Your task to perform on an android device: move a message to another label in the gmail app Image 0: 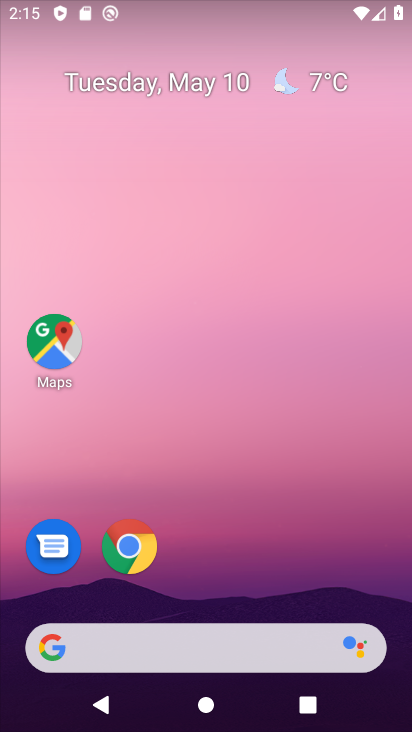
Step 0: drag from (236, 549) to (291, 175)
Your task to perform on an android device: move a message to another label in the gmail app Image 1: 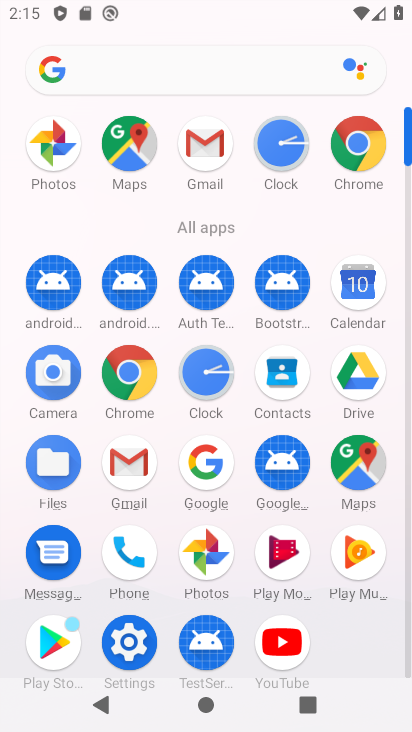
Step 1: click (220, 160)
Your task to perform on an android device: move a message to another label in the gmail app Image 2: 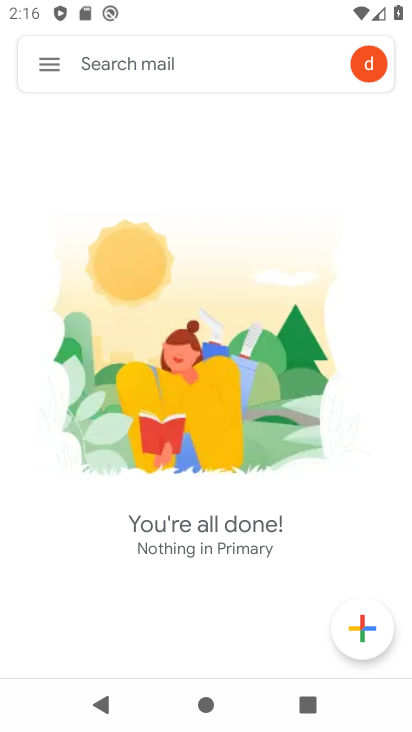
Step 2: task complete